Your task to perform on an android device: check battery use Image 0: 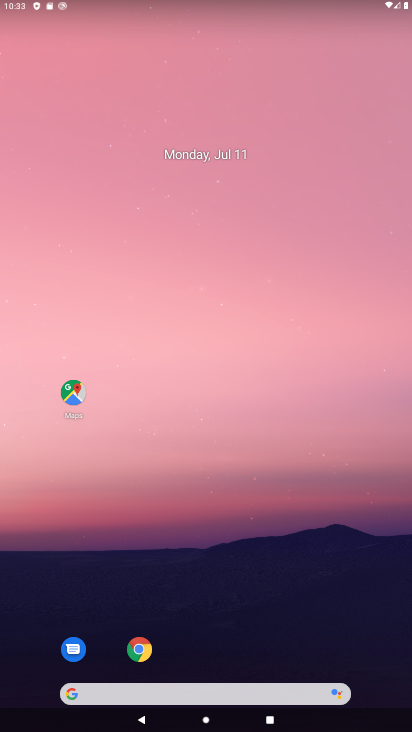
Step 0: drag from (192, 678) to (354, 409)
Your task to perform on an android device: check battery use Image 1: 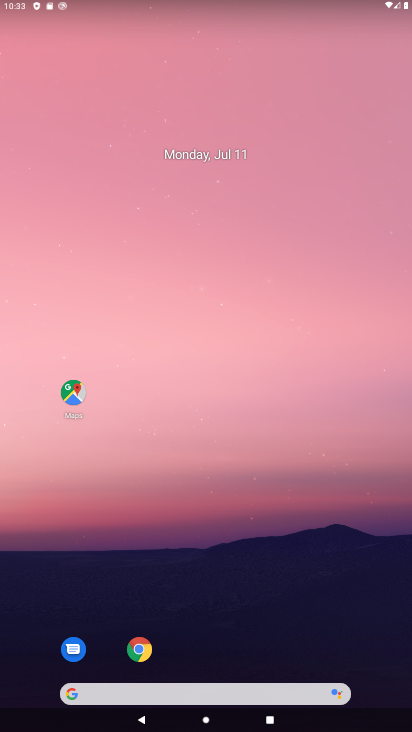
Step 1: drag from (244, 716) to (390, 62)
Your task to perform on an android device: check battery use Image 2: 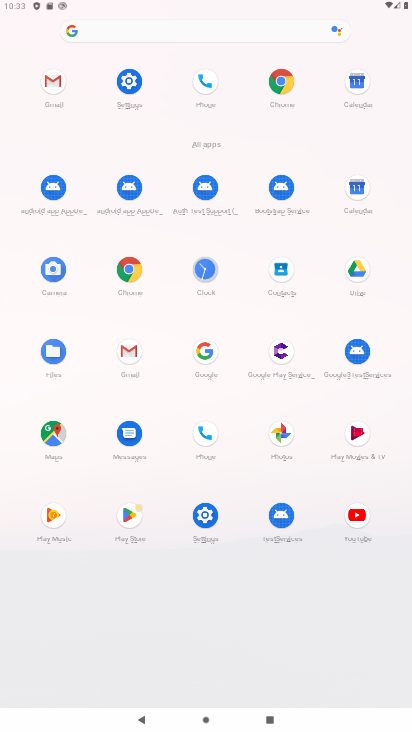
Step 2: click (130, 78)
Your task to perform on an android device: check battery use Image 3: 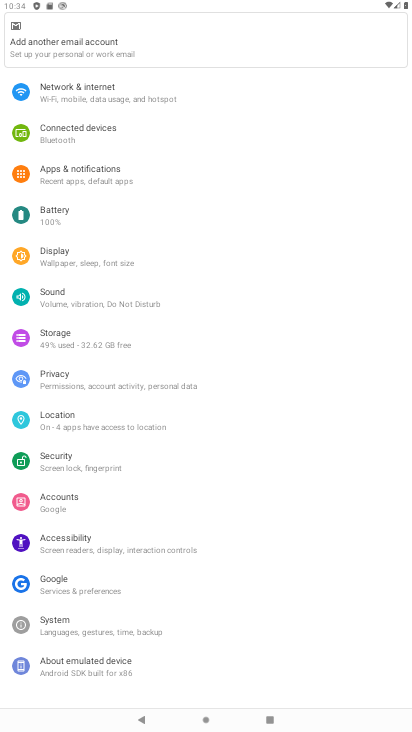
Step 3: click (65, 227)
Your task to perform on an android device: check battery use Image 4: 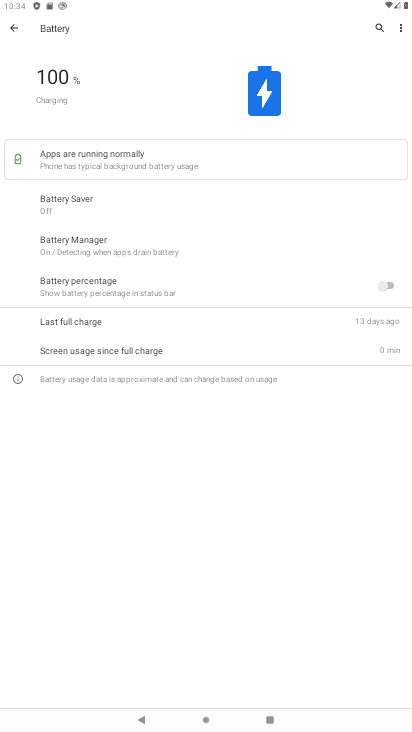
Step 4: click (402, 23)
Your task to perform on an android device: check battery use Image 5: 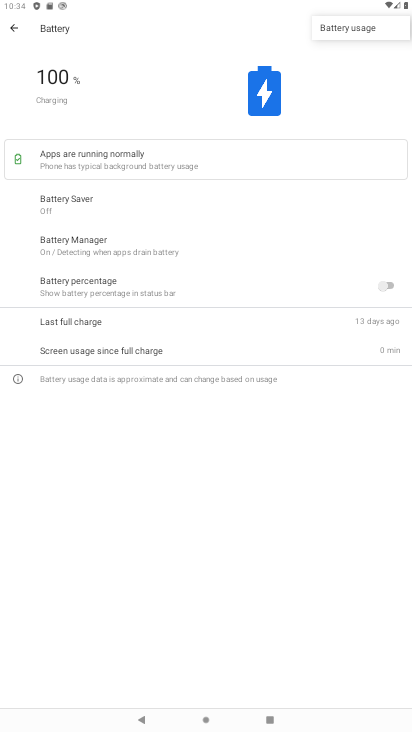
Step 5: click (351, 25)
Your task to perform on an android device: check battery use Image 6: 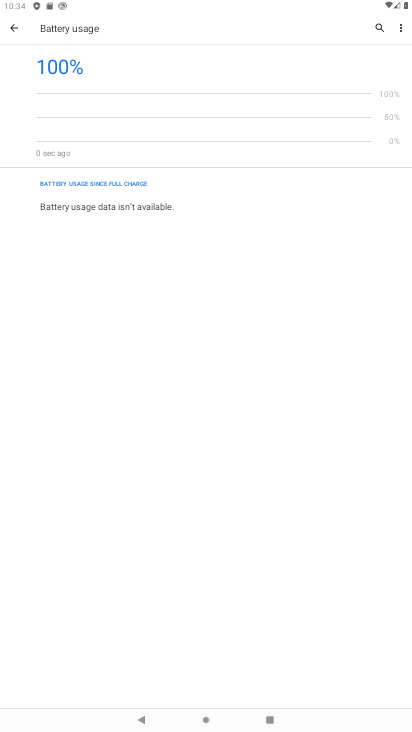
Step 6: task complete